Your task to perform on an android device: Open Wikipedia Image 0: 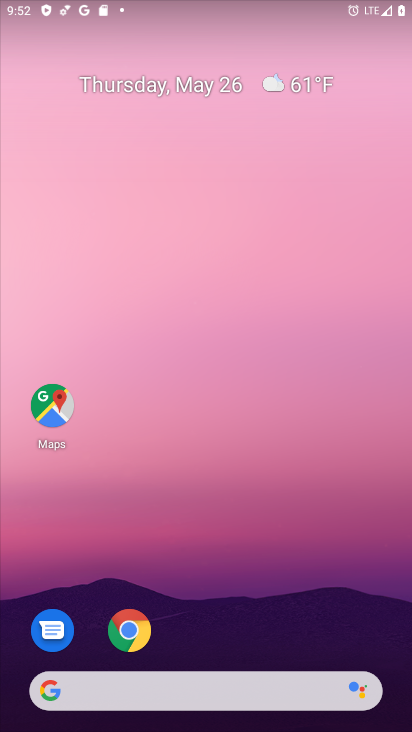
Step 0: drag from (187, 661) to (222, 184)
Your task to perform on an android device: Open Wikipedia Image 1: 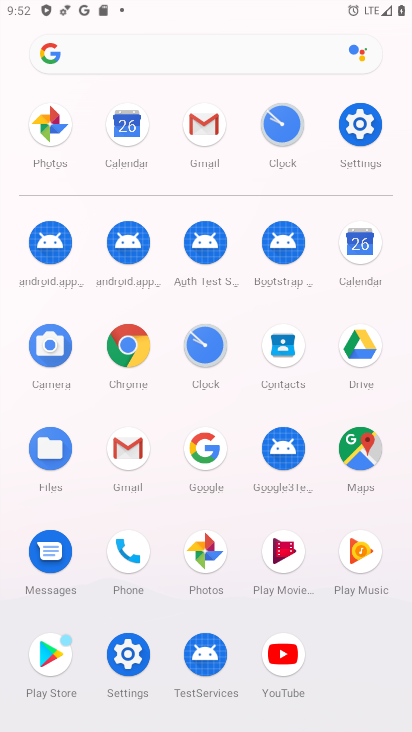
Step 1: click (132, 354)
Your task to perform on an android device: Open Wikipedia Image 2: 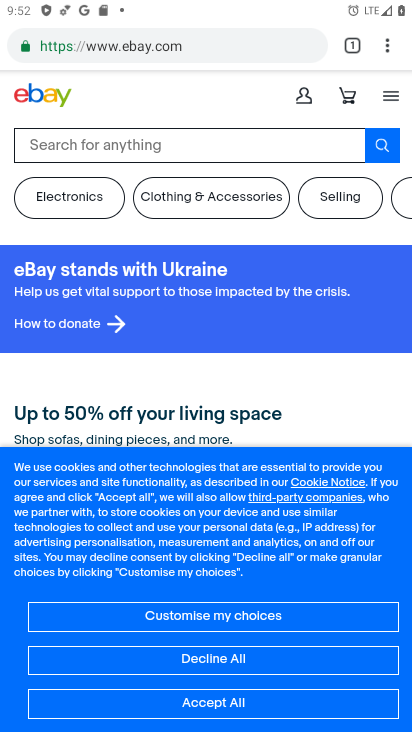
Step 2: click (350, 36)
Your task to perform on an android device: Open Wikipedia Image 3: 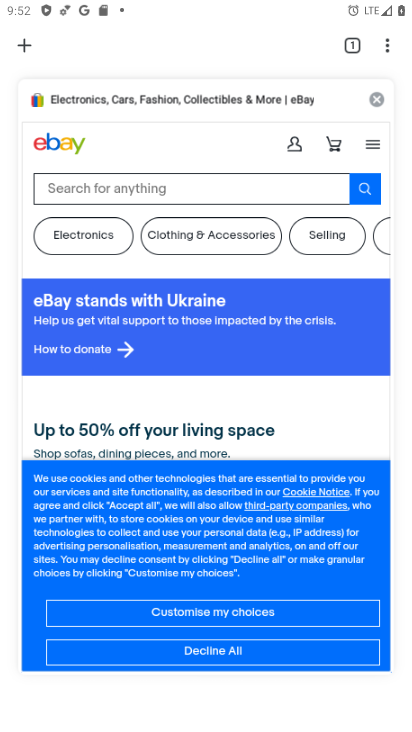
Step 3: click (23, 43)
Your task to perform on an android device: Open Wikipedia Image 4: 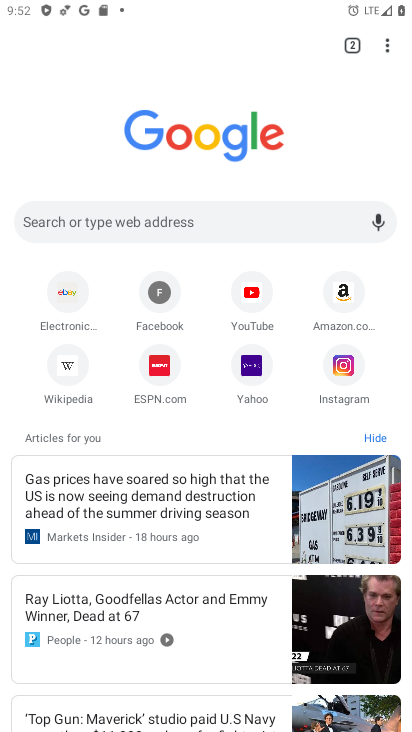
Step 4: click (69, 367)
Your task to perform on an android device: Open Wikipedia Image 5: 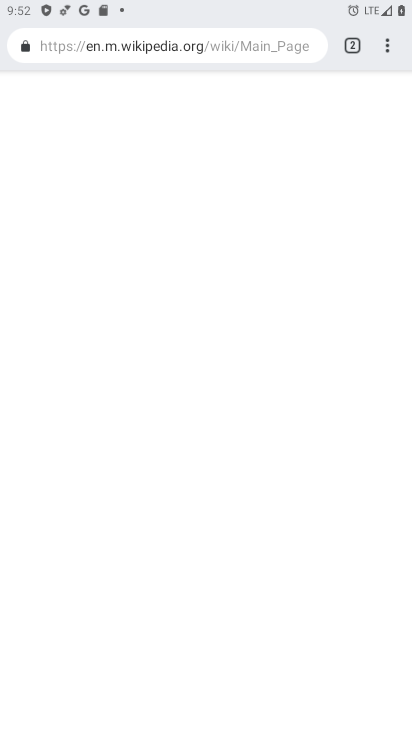
Step 5: task complete